Your task to perform on an android device: delete a single message in the gmail app Image 0: 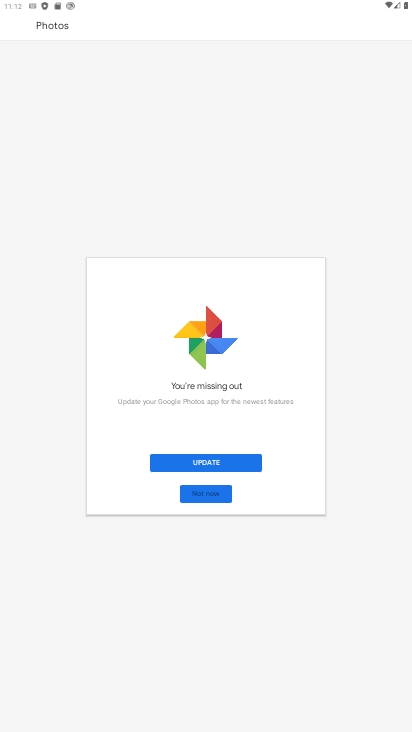
Step 0: press home button
Your task to perform on an android device: delete a single message in the gmail app Image 1: 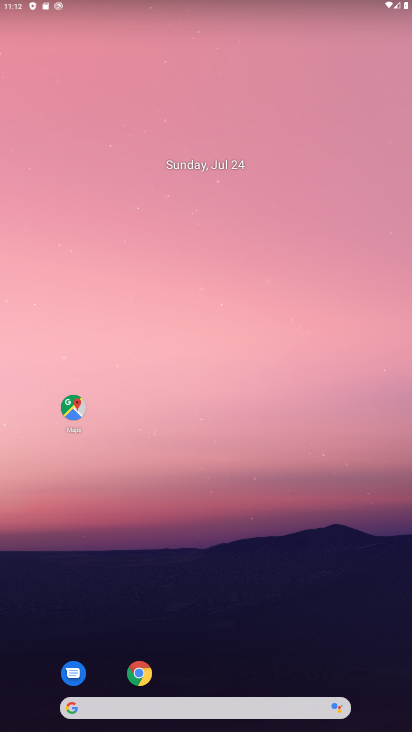
Step 1: drag from (293, 452) to (219, 2)
Your task to perform on an android device: delete a single message in the gmail app Image 2: 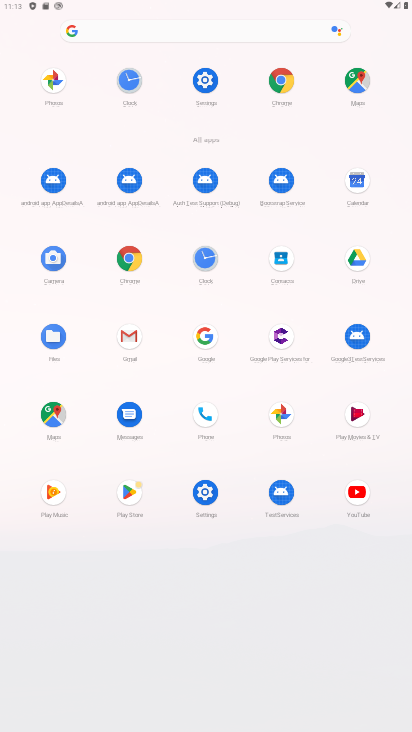
Step 2: click (128, 342)
Your task to perform on an android device: delete a single message in the gmail app Image 3: 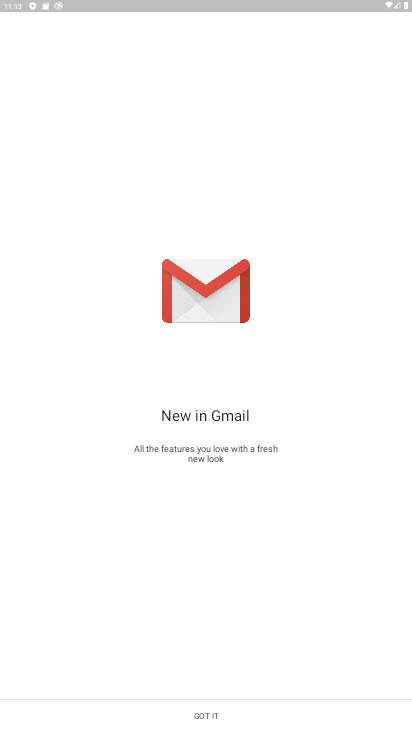
Step 3: click (226, 712)
Your task to perform on an android device: delete a single message in the gmail app Image 4: 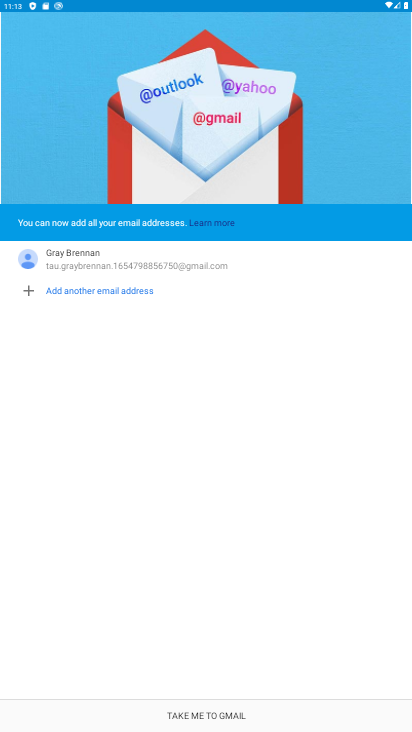
Step 4: click (228, 711)
Your task to perform on an android device: delete a single message in the gmail app Image 5: 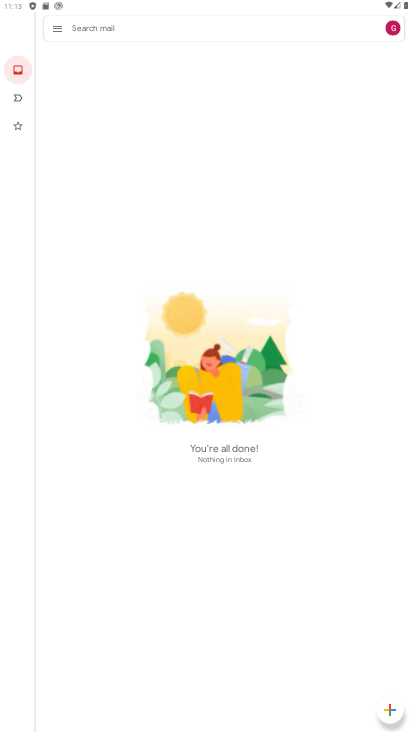
Step 5: click (63, 27)
Your task to perform on an android device: delete a single message in the gmail app Image 6: 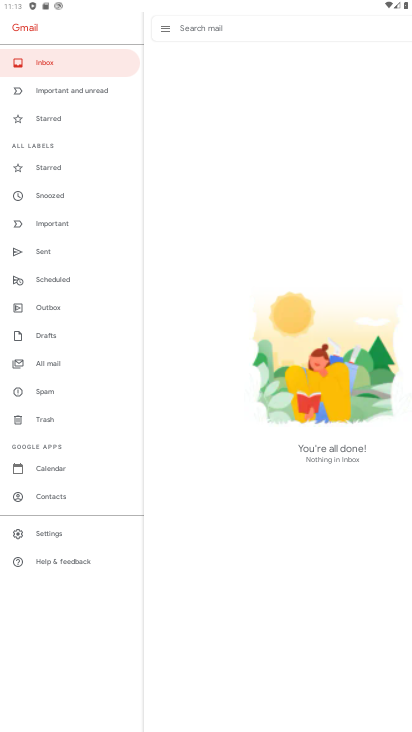
Step 6: click (65, 369)
Your task to perform on an android device: delete a single message in the gmail app Image 7: 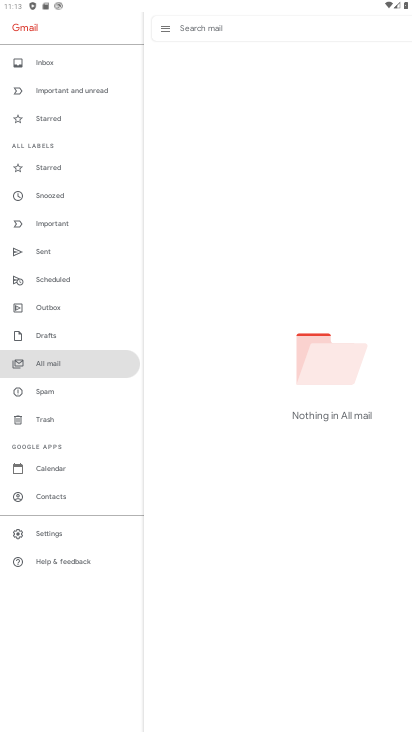
Step 7: task complete